Your task to perform on an android device: Go to display settings Image 0: 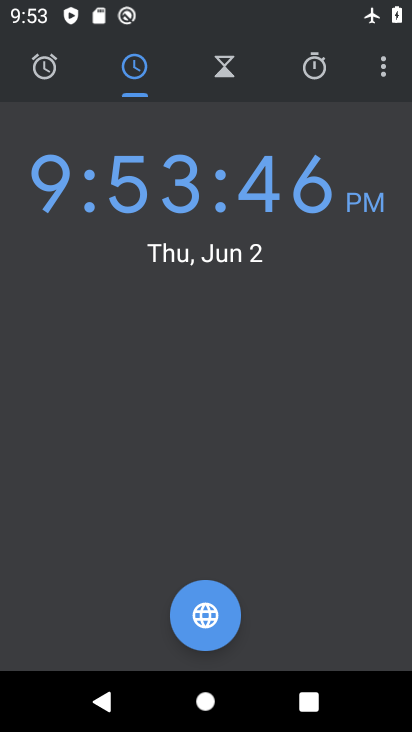
Step 0: press home button
Your task to perform on an android device: Go to display settings Image 1: 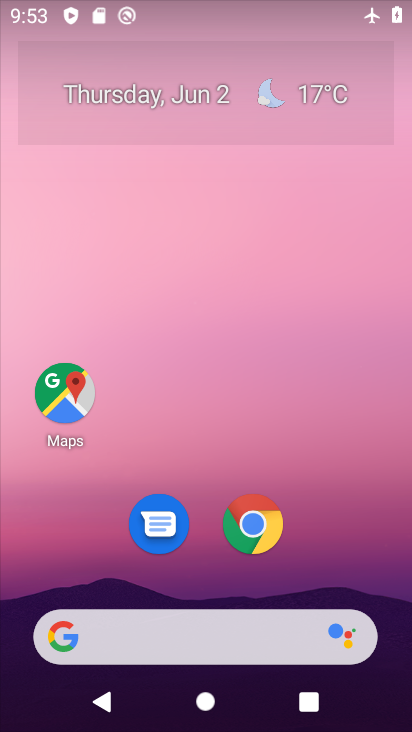
Step 1: drag from (296, 527) to (293, 0)
Your task to perform on an android device: Go to display settings Image 2: 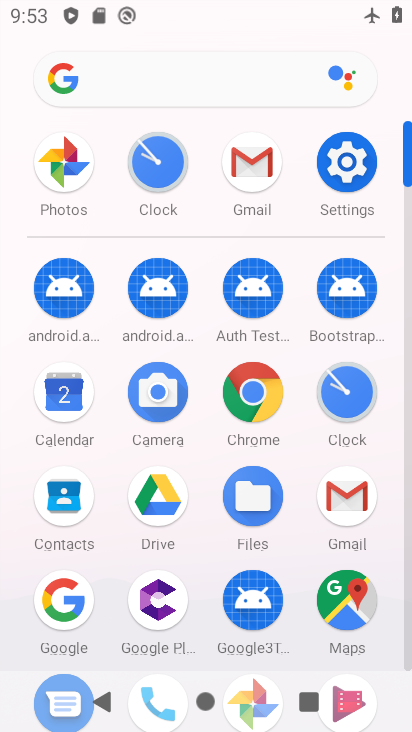
Step 2: click (341, 162)
Your task to perform on an android device: Go to display settings Image 3: 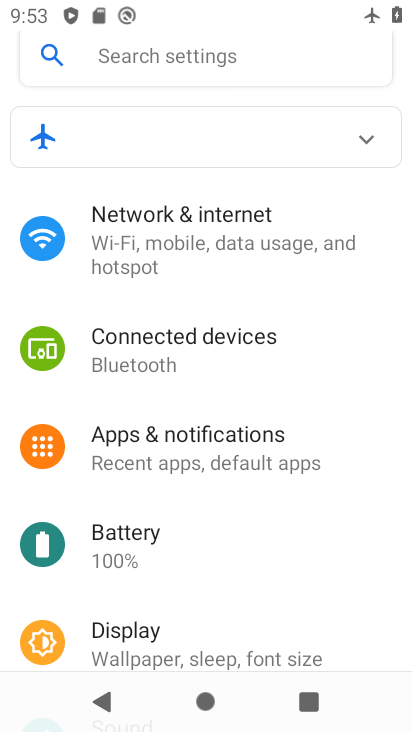
Step 3: click (203, 633)
Your task to perform on an android device: Go to display settings Image 4: 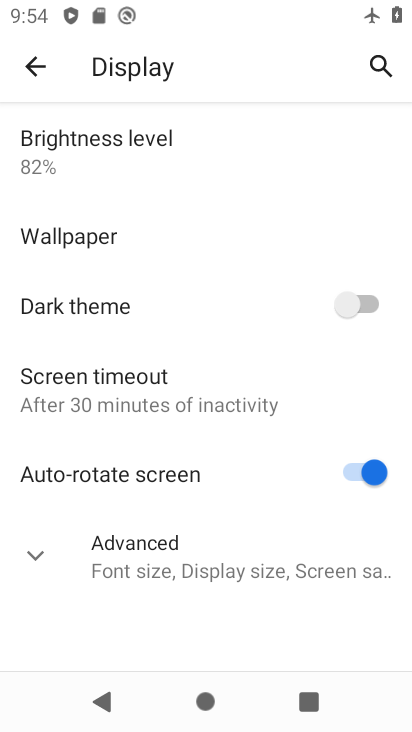
Step 4: task complete